Your task to perform on an android device: Open Google Chrome and click the shortcut for Amazon.com Image 0: 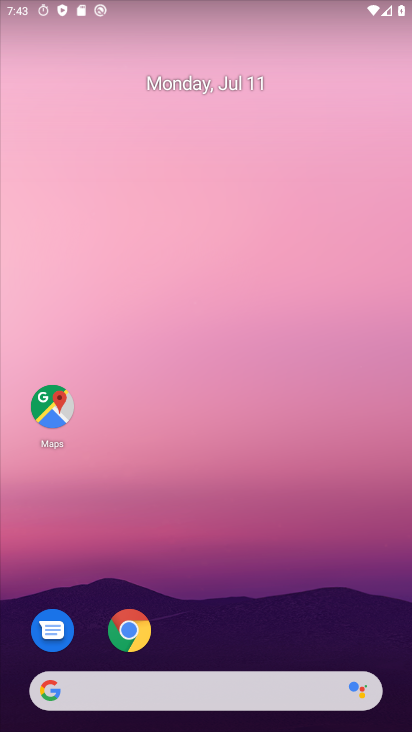
Step 0: click (128, 627)
Your task to perform on an android device: Open Google Chrome and click the shortcut for Amazon.com Image 1: 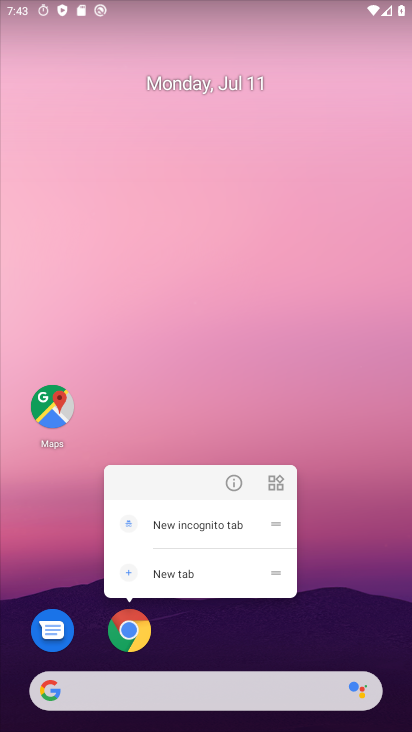
Step 1: click (128, 629)
Your task to perform on an android device: Open Google Chrome and click the shortcut for Amazon.com Image 2: 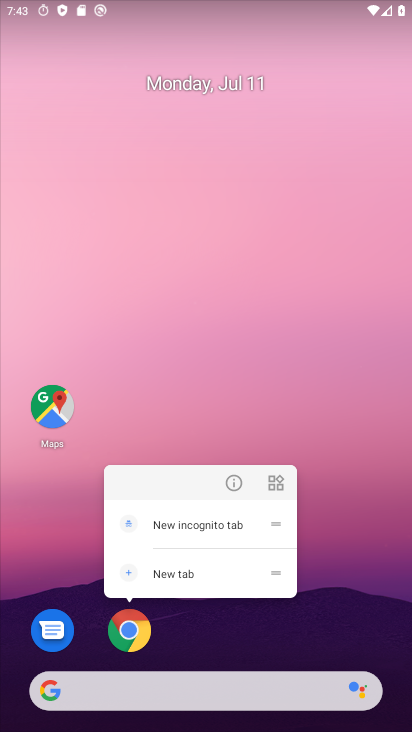
Step 2: click (128, 629)
Your task to perform on an android device: Open Google Chrome and click the shortcut for Amazon.com Image 3: 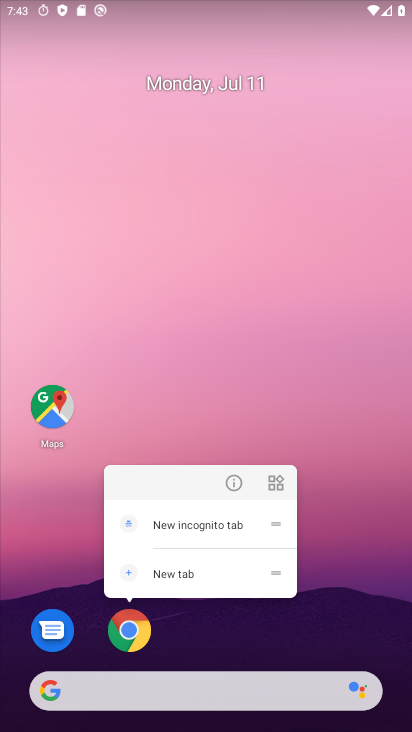
Step 3: click (127, 634)
Your task to perform on an android device: Open Google Chrome and click the shortcut for Amazon.com Image 4: 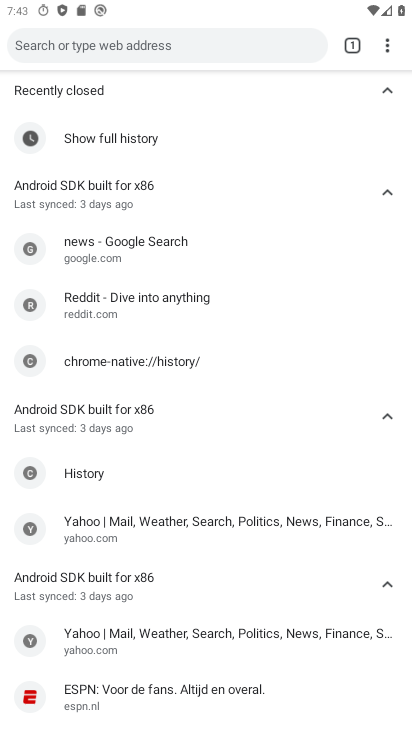
Step 4: drag from (384, 46) to (238, 94)
Your task to perform on an android device: Open Google Chrome and click the shortcut for Amazon.com Image 5: 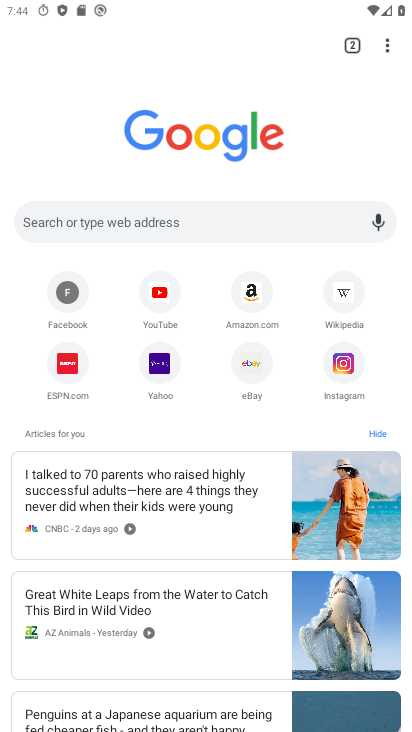
Step 5: click (251, 299)
Your task to perform on an android device: Open Google Chrome and click the shortcut for Amazon.com Image 6: 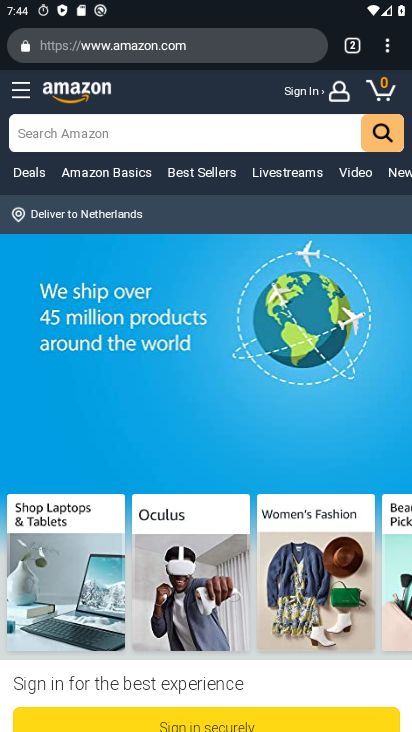
Step 6: task complete